Your task to perform on an android device: Open my contact list Image 0: 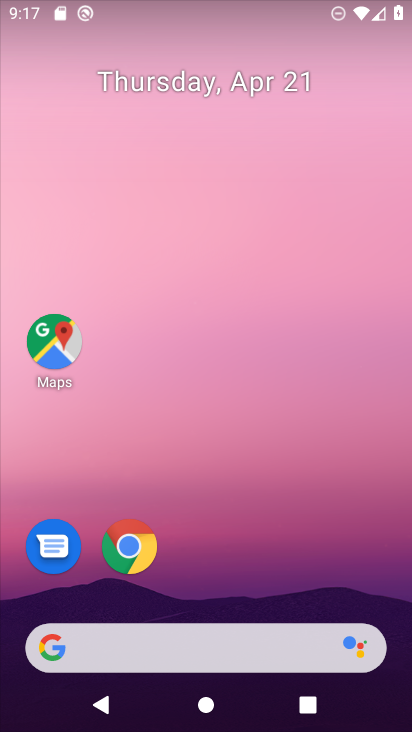
Step 0: drag from (368, 528) to (391, 68)
Your task to perform on an android device: Open my contact list Image 1: 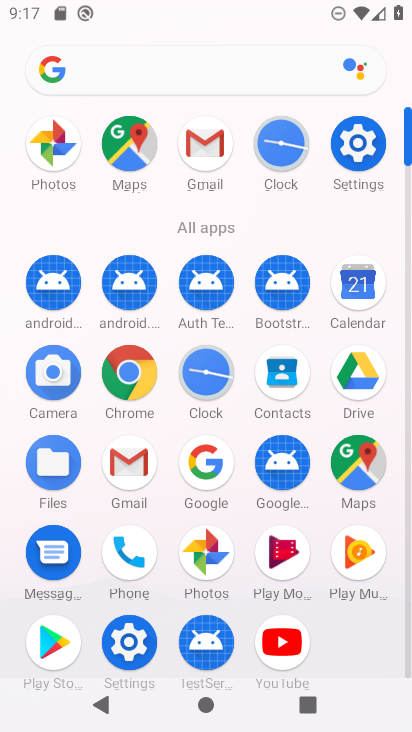
Step 1: click (282, 384)
Your task to perform on an android device: Open my contact list Image 2: 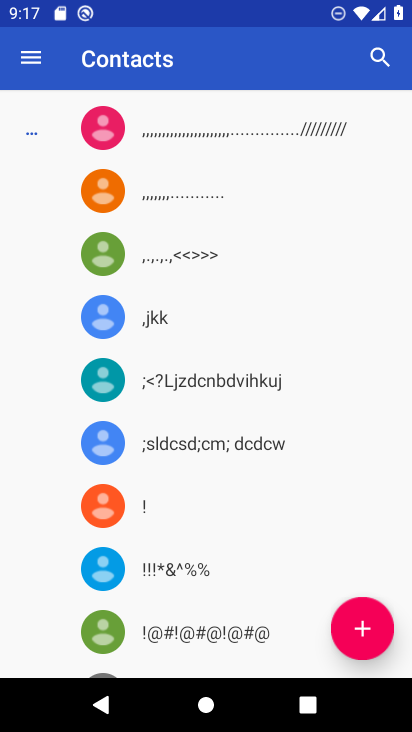
Step 2: task complete